Your task to perform on an android device: turn off javascript in the chrome app Image 0: 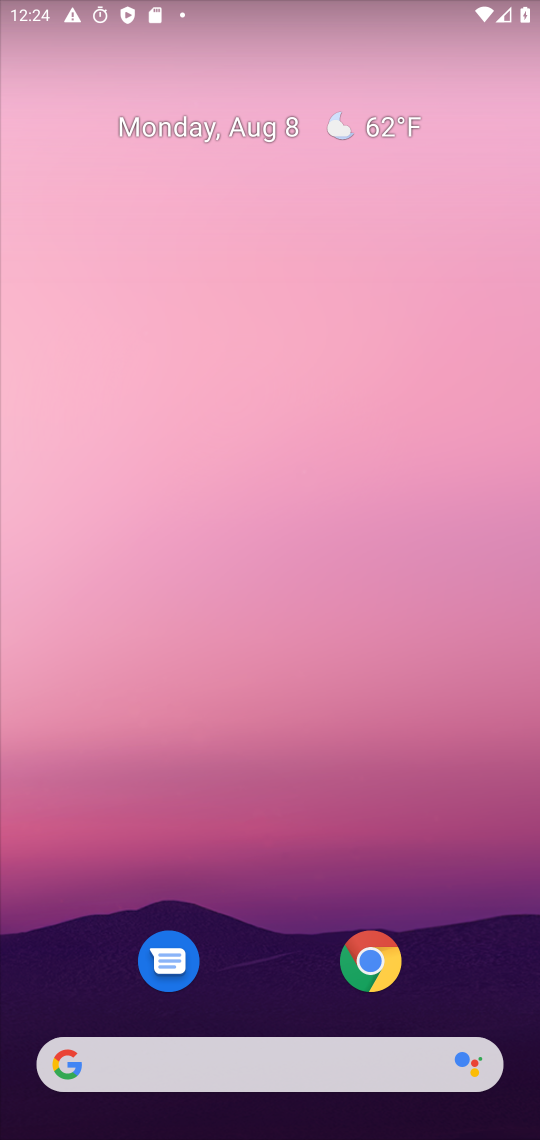
Step 0: drag from (330, 1055) to (420, 10)
Your task to perform on an android device: turn off javascript in the chrome app Image 1: 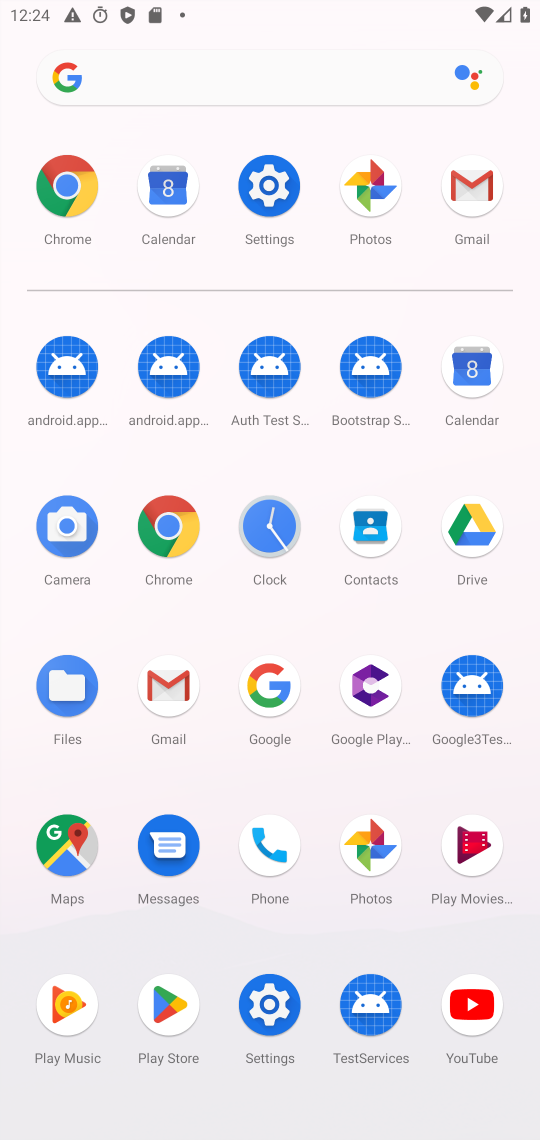
Step 1: click (160, 534)
Your task to perform on an android device: turn off javascript in the chrome app Image 2: 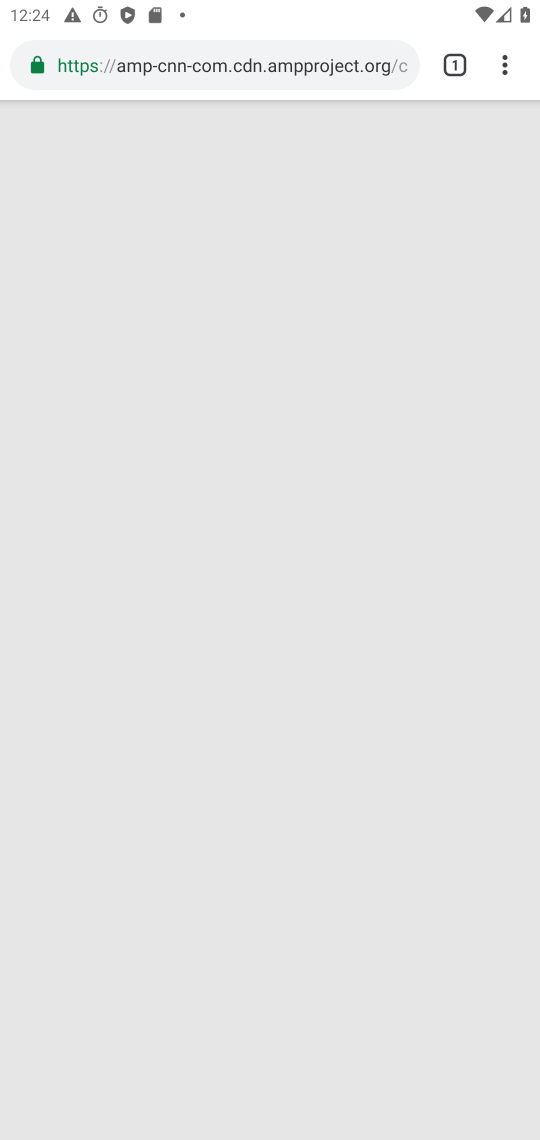
Step 2: click (503, 67)
Your task to perform on an android device: turn off javascript in the chrome app Image 3: 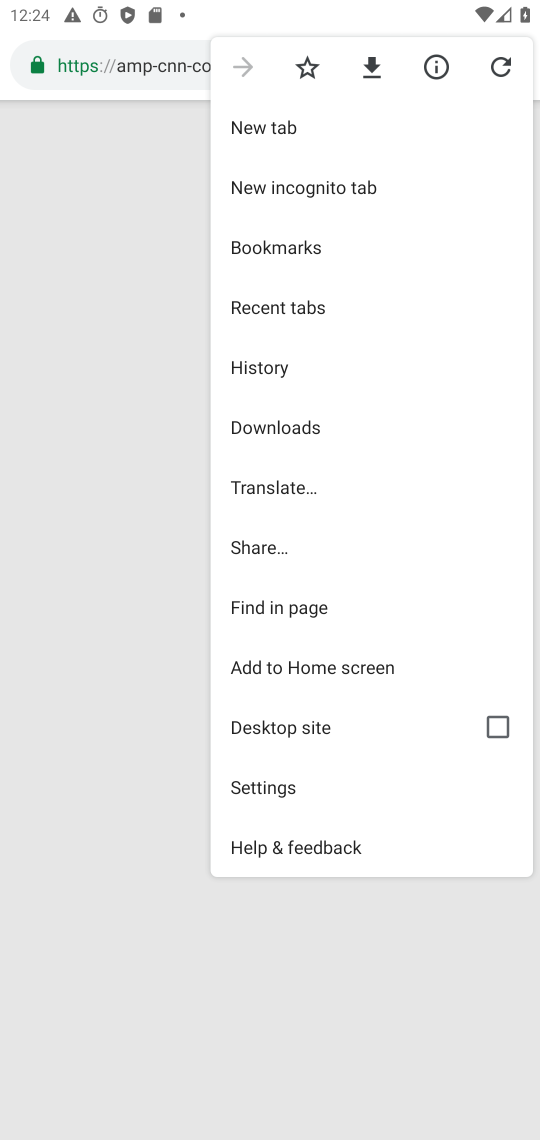
Step 3: click (288, 777)
Your task to perform on an android device: turn off javascript in the chrome app Image 4: 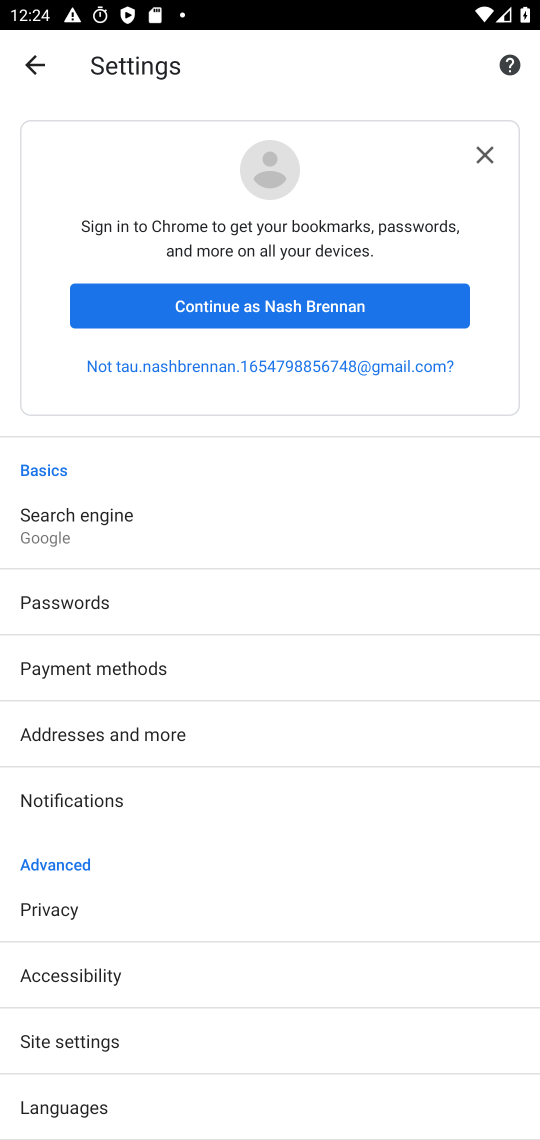
Step 4: click (167, 1031)
Your task to perform on an android device: turn off javascript in the chrome app Image 5: 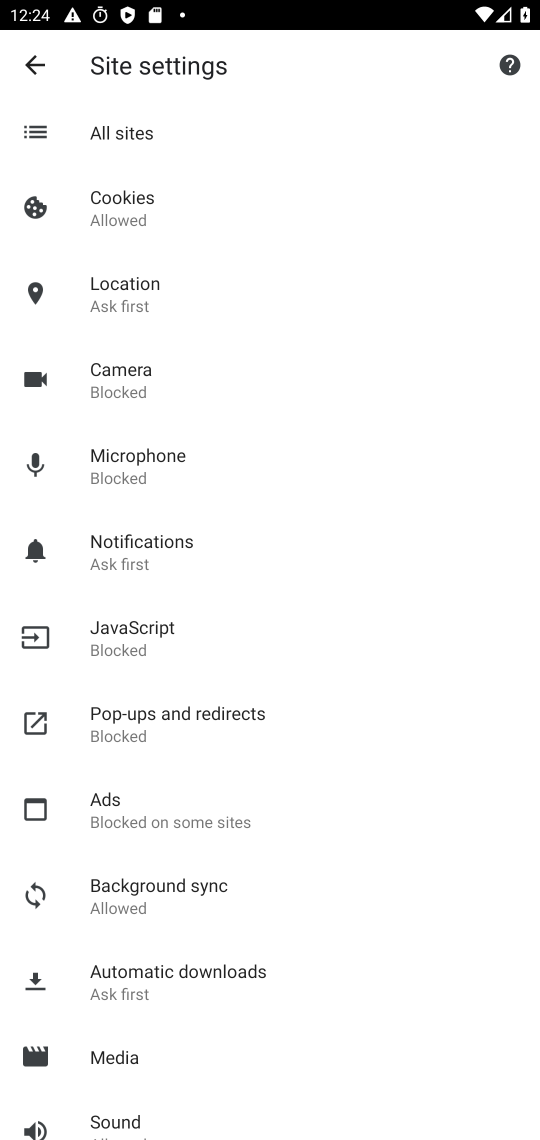
Step 5: click (131, 634)
Your task to perform on an android device: turn off javascript in the chrome app Image 6: 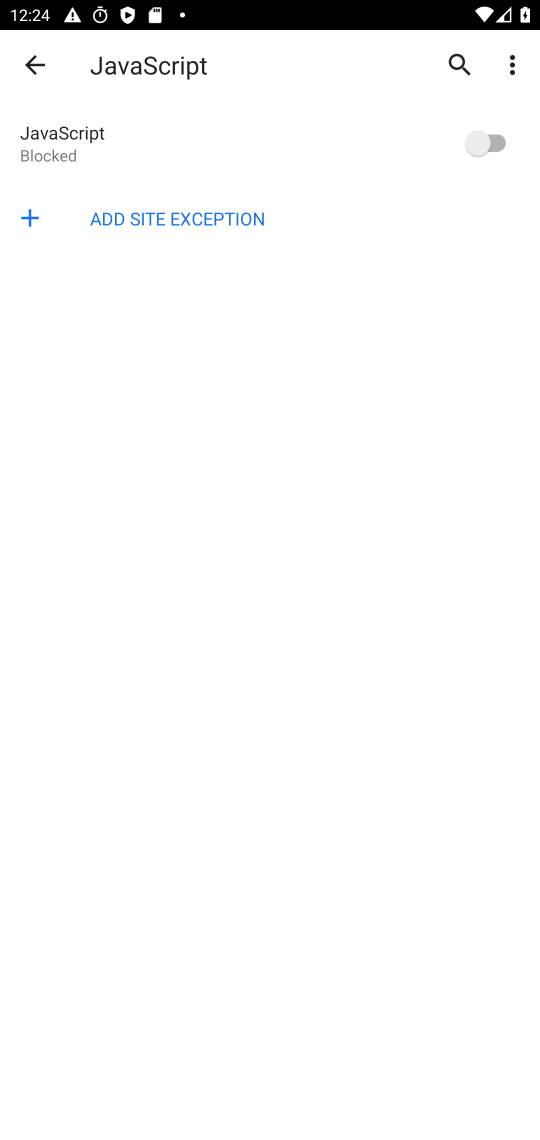
Step 6: task complete